Your task to perform on an android device: See recent photos Image 0: 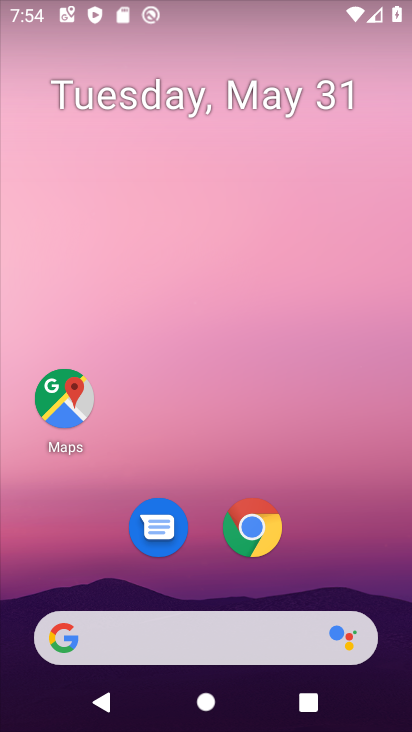
Step 0: drag from (331, 500) to (229, 99)
Your task to perform on an android device: See recent photos Image 1: 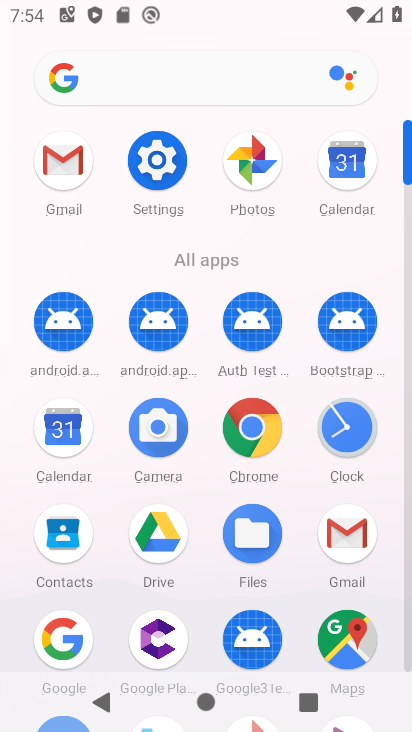
Step 1: click (249, 164)
Your task to perform on an android device: See recent photos Image 2: 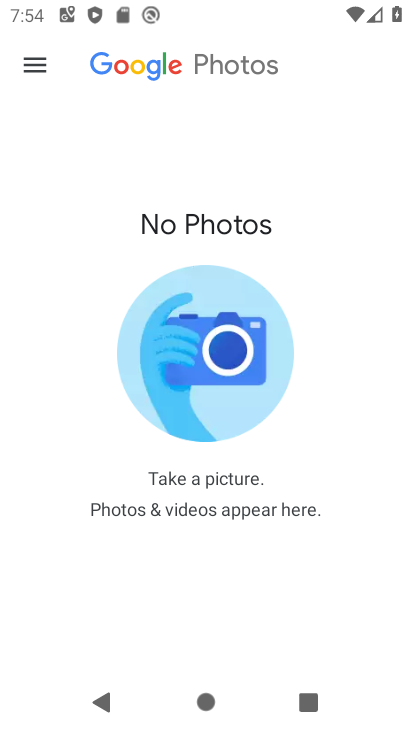
Step 2: task complete